Your task to perform on an android device: turn off notifications in google photos Image 0: 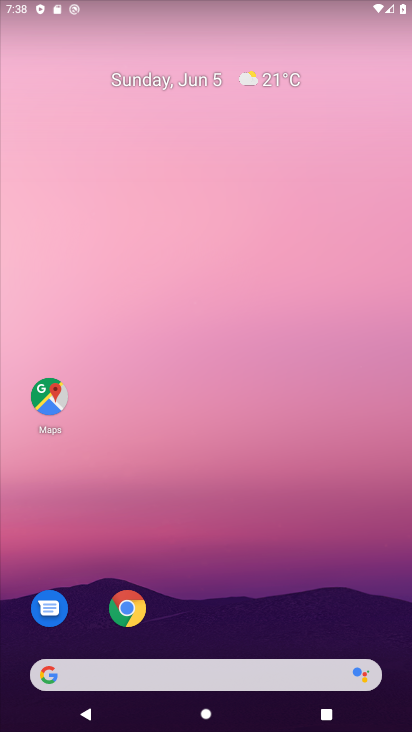
Step 0: drag from (267, 586) to (269, 127)
Your task to perform on an android device: turn off notifications in google photos Image 1: 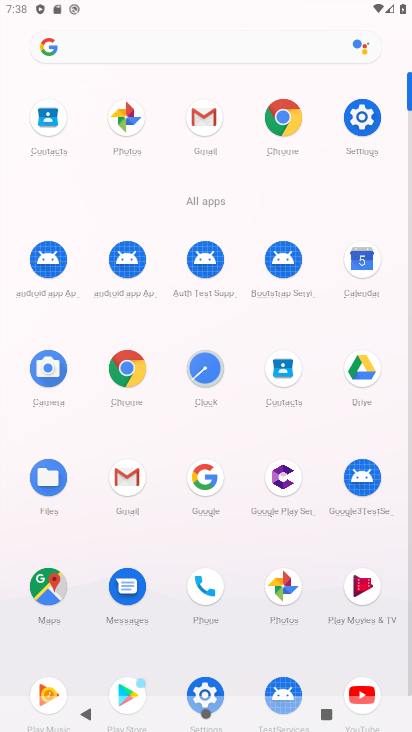
Step 1: click (285, 592)
Your task to perform on an android device: turn off notifications in google photos Image 2: 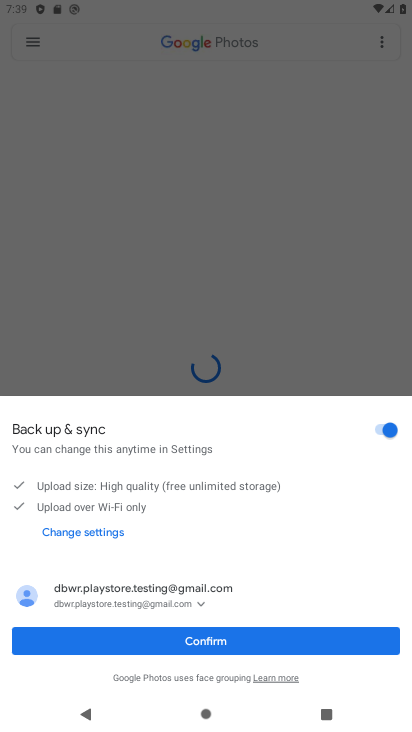
Step 2: click (273, 642)
Your task to perform on an android device: turn off notifications in google photos Image 3: 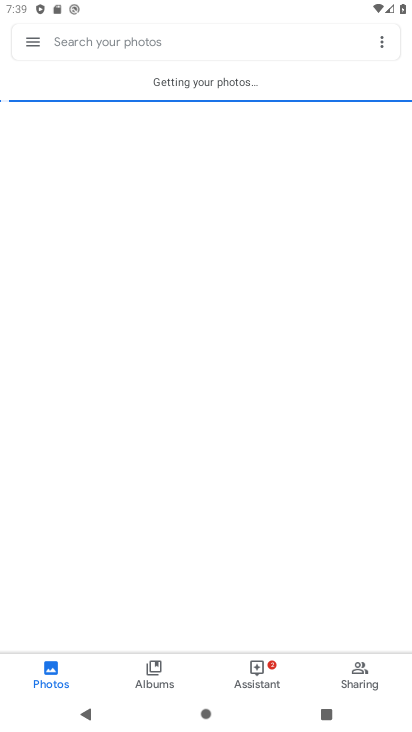
Step 3: click (16, 39)
Your task to perform on an android device: turn off notifications in google photos Image 4: 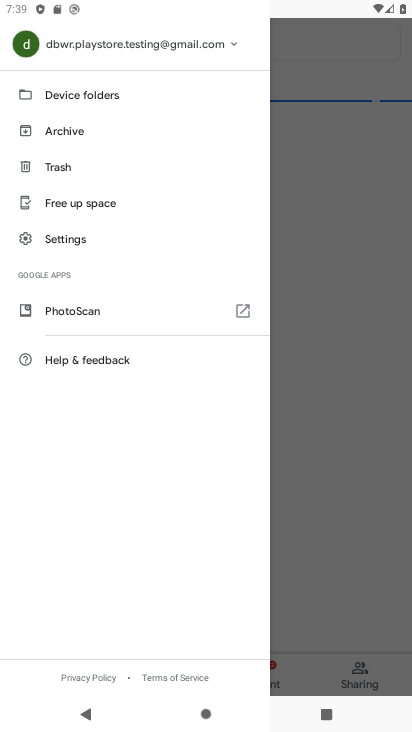
Step 4: click (107, 238)
Your task to perform on an android device: turn off notifications in google photos Image 5: 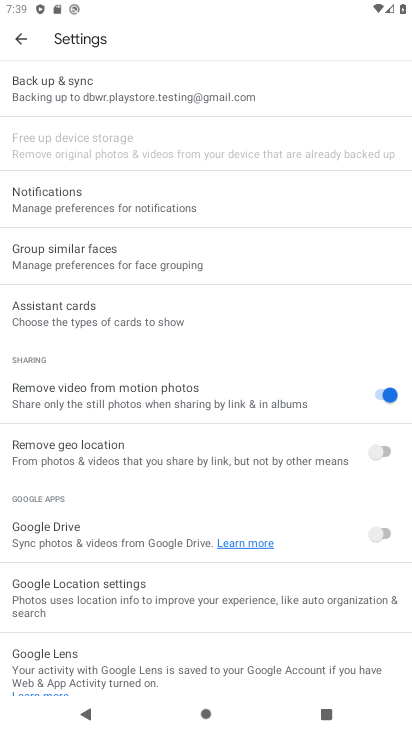
Step 5: drag from (86, 117) to (108, 346)
Your task to perform on an android device: turn off notifications in google photos Image 6: 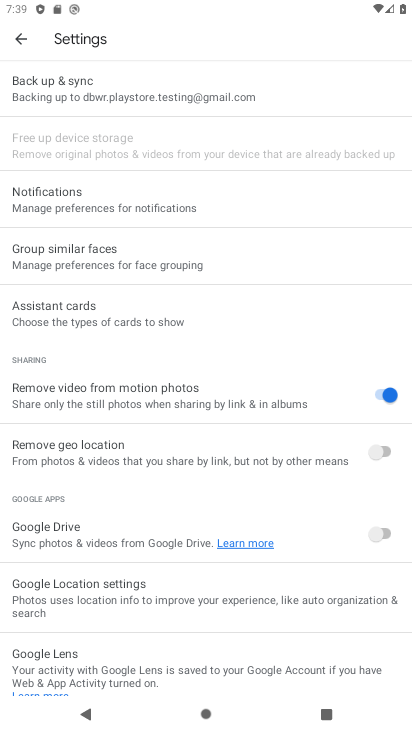
Step 6: click (99, 207)
Your task to perform on an android device: turn off notifications in google photos Image 7: 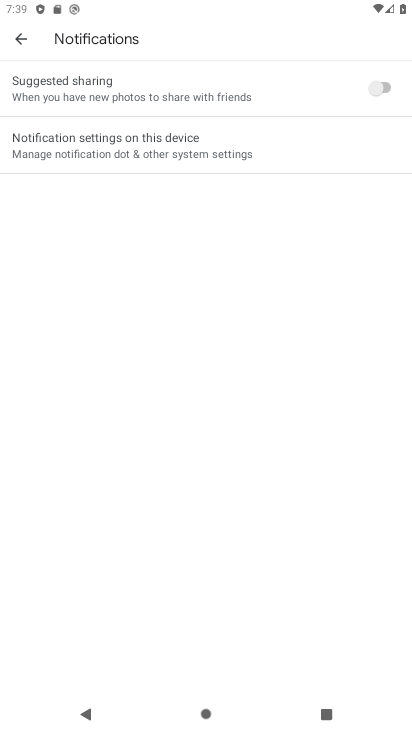
Step 7: click (111, 148)
Your task to perform on an android device: turn off notifications in google photos Image 8: 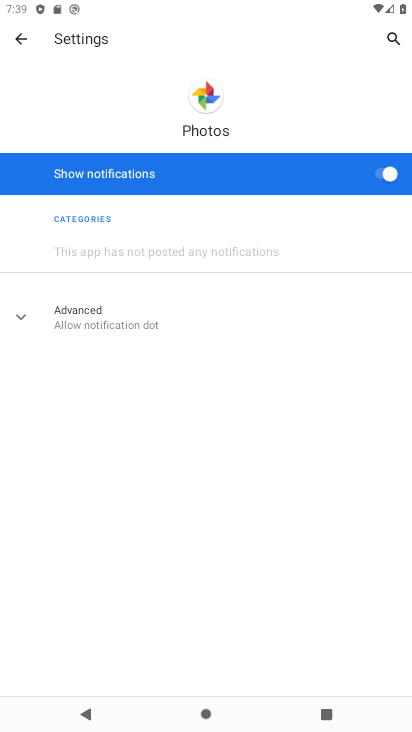
Step 8: click (378, 182)
Your task to perform on an android device: turn off notifications in google photos Image 9: 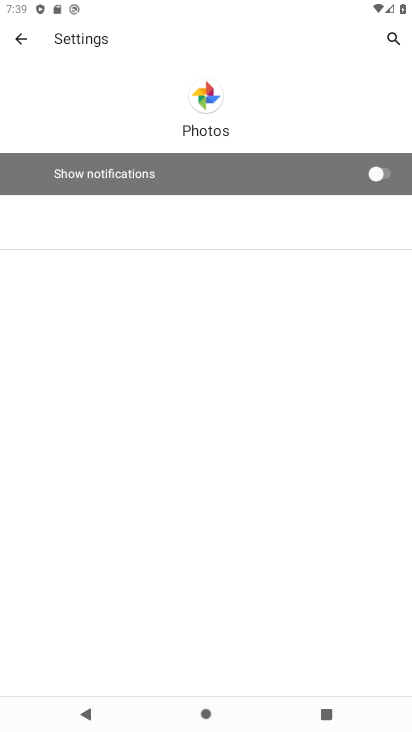
Step 9: task complete